Your task to perform on an android device: open wifi settings Image 0: 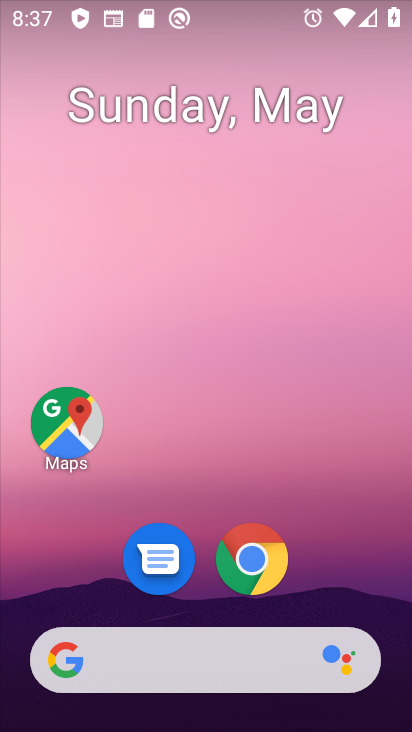
Step 0: drag from (119, 0) to (119, 545)
Your task to perform on an android device: open wifi settings Image 1: 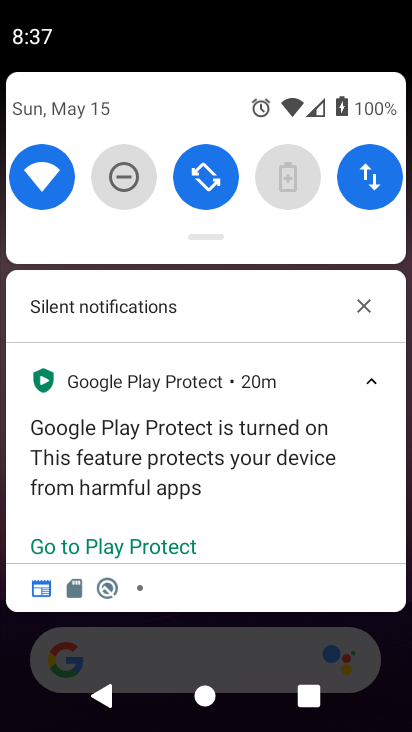
Step 1: click (47, 186)
Your task to perform on an android device: open wifi settings Image 2: 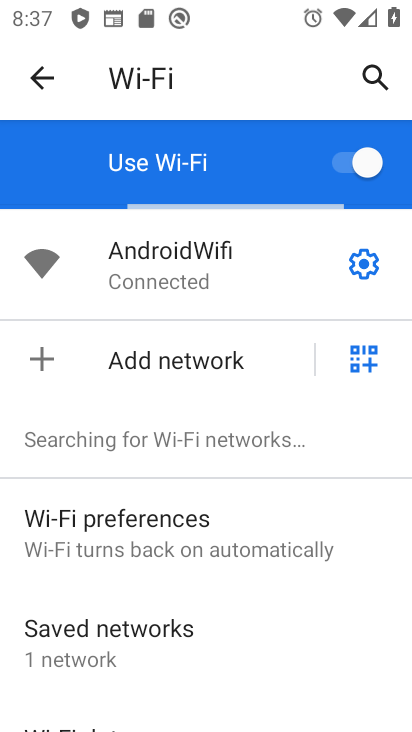
Step 2: click (373, 266)
Your task to perform on an android device: open wifi settings Image 3: 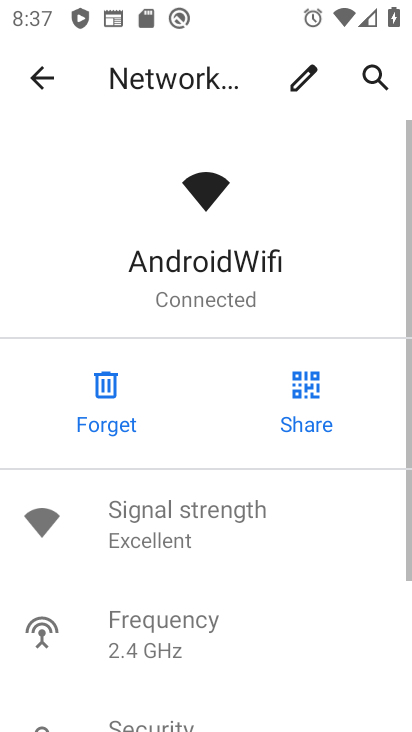
Step 3: task complete